Your task to perform on an android device: Clear the shopping cart on costco.com. Add rayovac triple a to the cart on costco.com, then select checkout. Image 0: 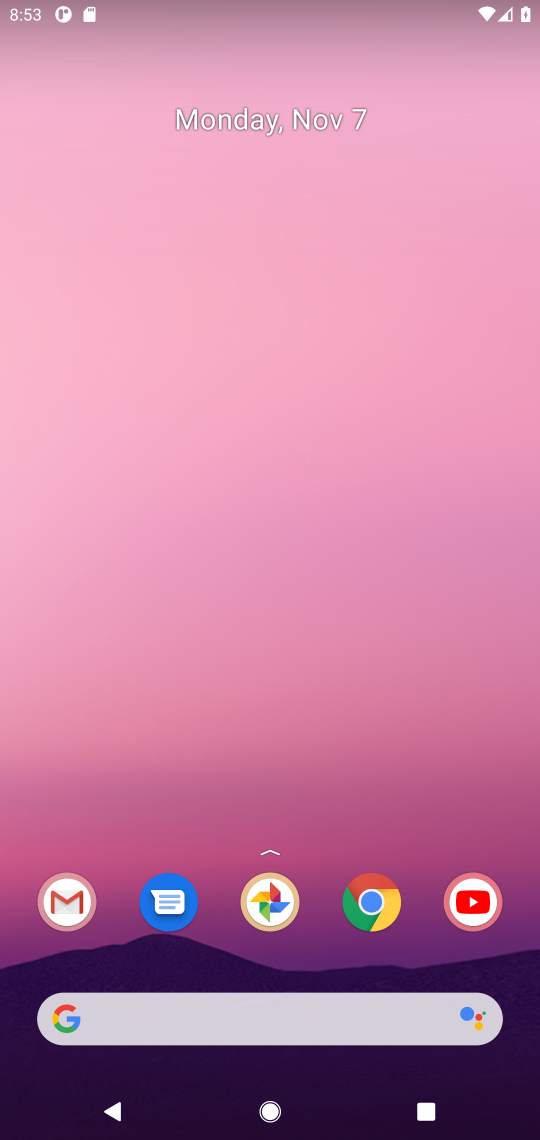
Step 0: click (363, 897)
Your task to perform on an android device: Clear the shopping cart on costco.com. Add rayovac triple a to the cart on costco.com, then select checkout. Image 1: 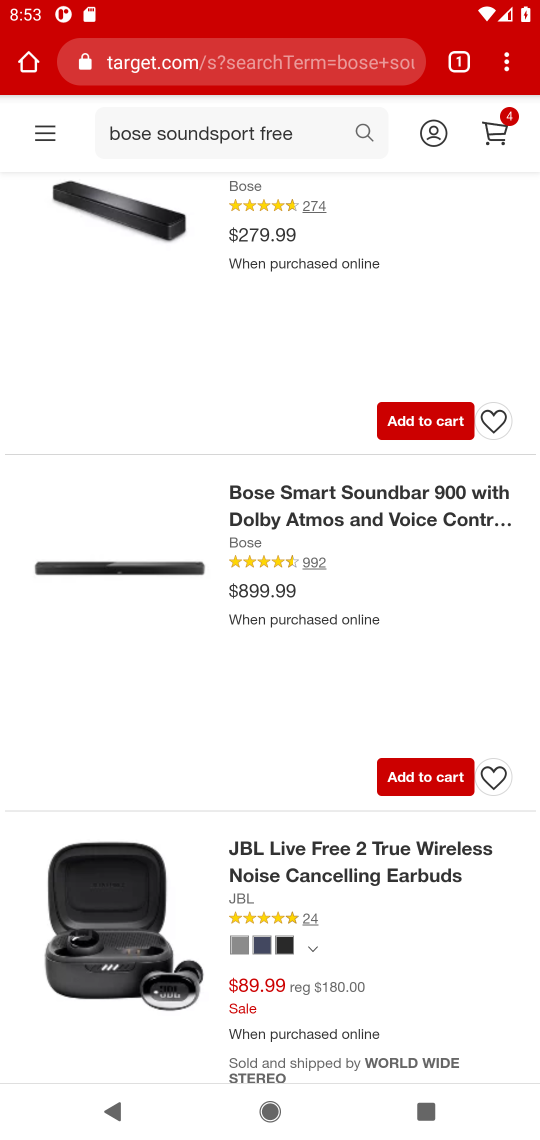
Step 1: click (155, 59)
Your task to perform on an android device: Clear the shopping cart on costco.com. Add rayovac triple a to the cart on costco.com, then select checkout. Image 2: 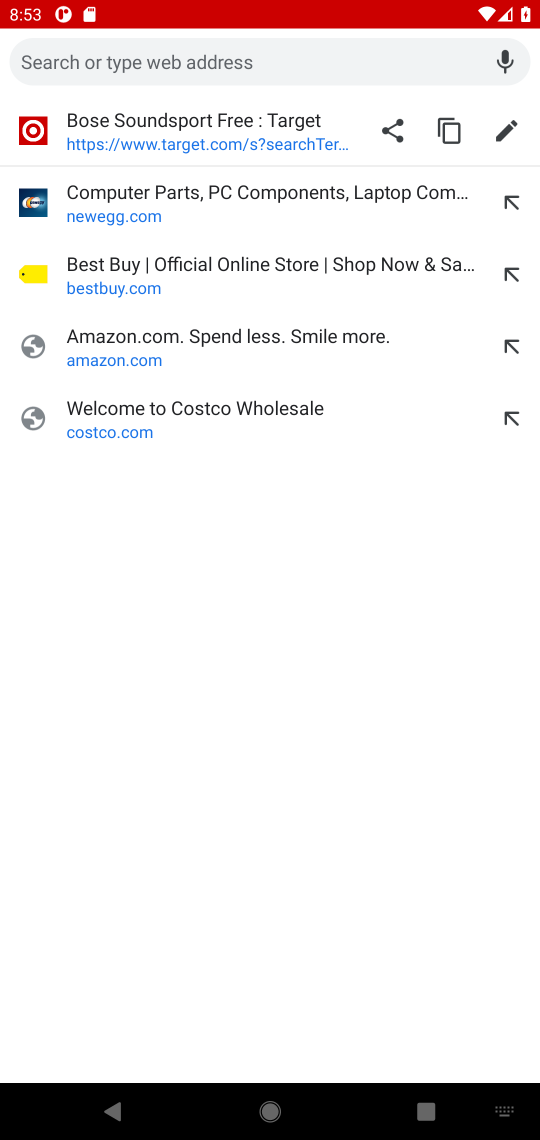
Step 2: click (119, 439)
Your task to perform on an android device: Clear the shopping cart on costco.com. Add rayovac triple a to the cart on costco.com, then select checkout. Image 3: 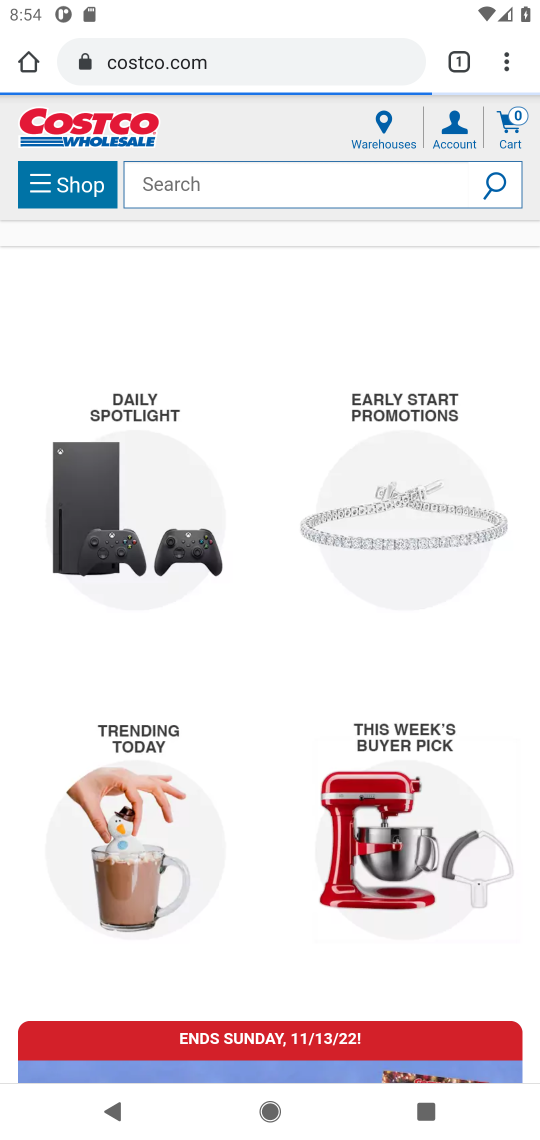
Step 3: click (515, 122)
Your task to perform on an android device: Clear the shopping cart on costco.com. Add rayovac triple a to the cart on costco.com, then select checkout. Image 4: 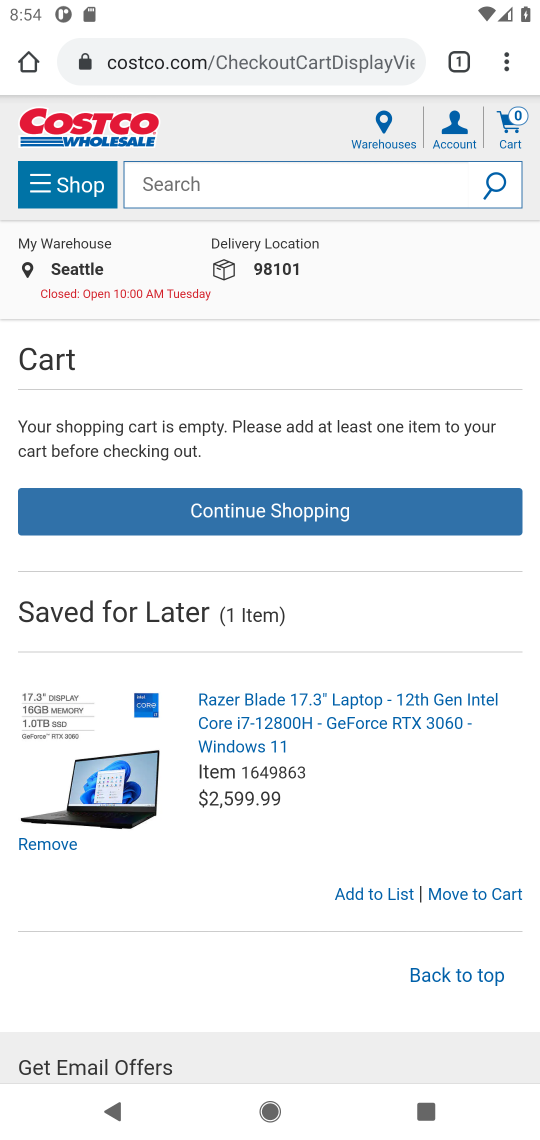
Step 4: click (160, 178)
Your task to perform on an android device: Clear the shopping cart on costco.com. Add rayovac triple a to the cart on costco.com, then select checkout. Image 5: 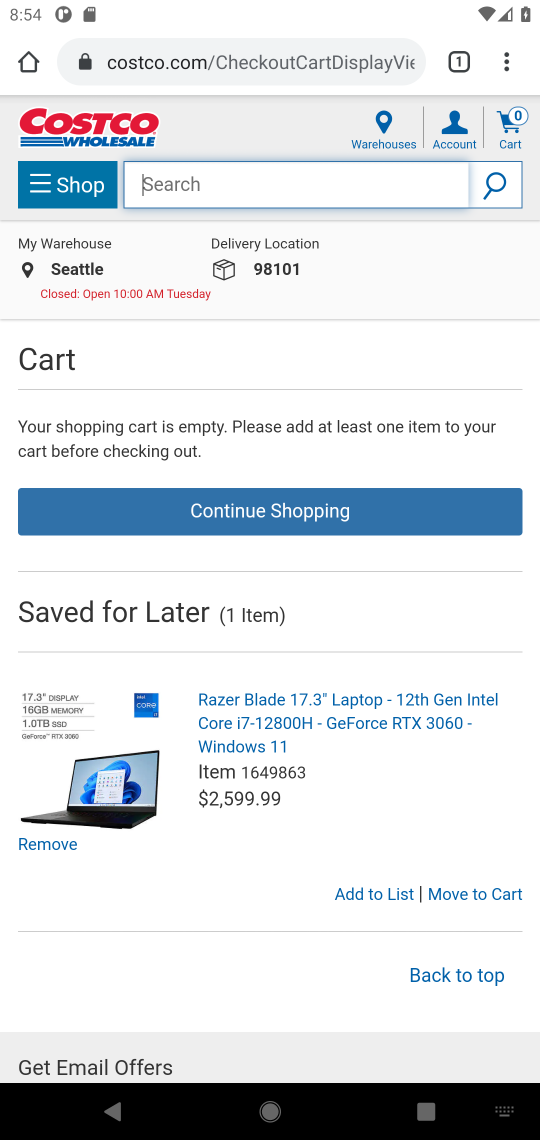
Step 5: type "rayovac triple a"
Your task to perform on an android device: Clear the shopping cart on costco.com. Add rayovac triple a to the cart on costco.com, then select checkout. Image 6: 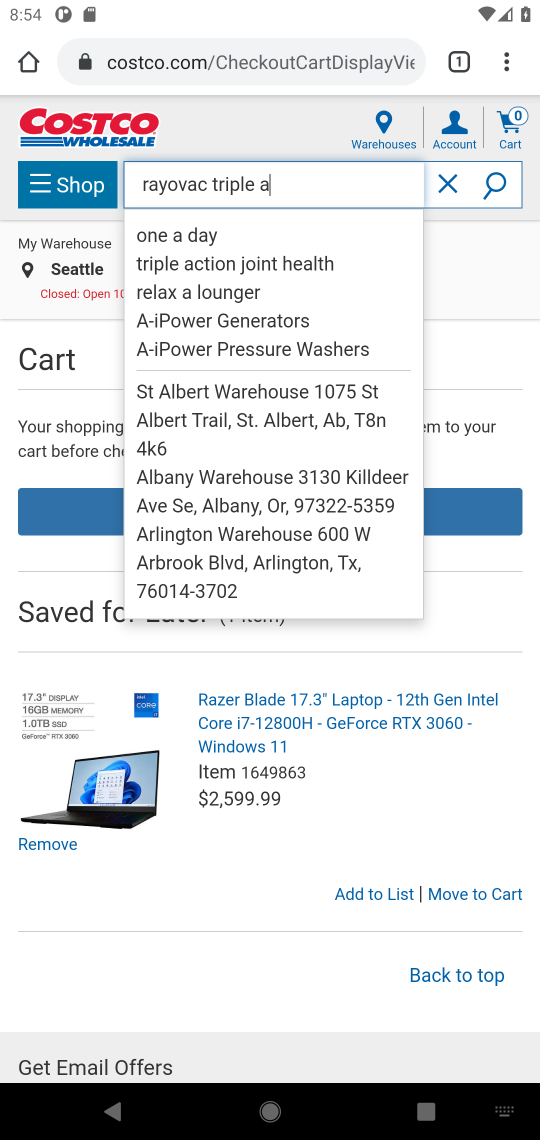
Step 6: click (488, 180)
Your task to perform on an android device: Clear the shopping cart on costco.com. Add rayovac triple a to the cart on costco.com, then select checkout. Image 7: 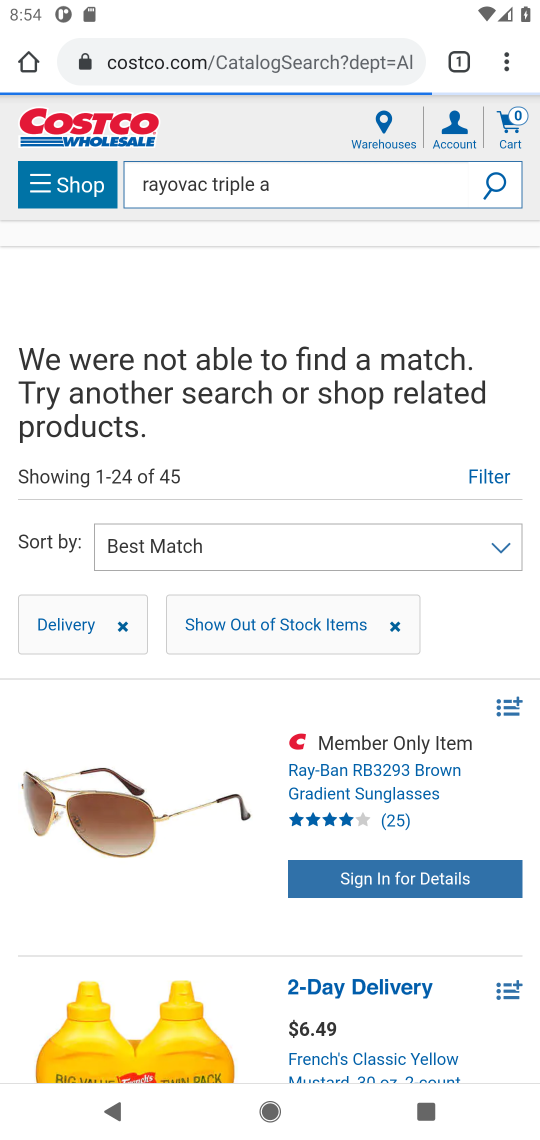
Step 7: task complete